Your task to perform on an android device: Go to internet settings Image 0: 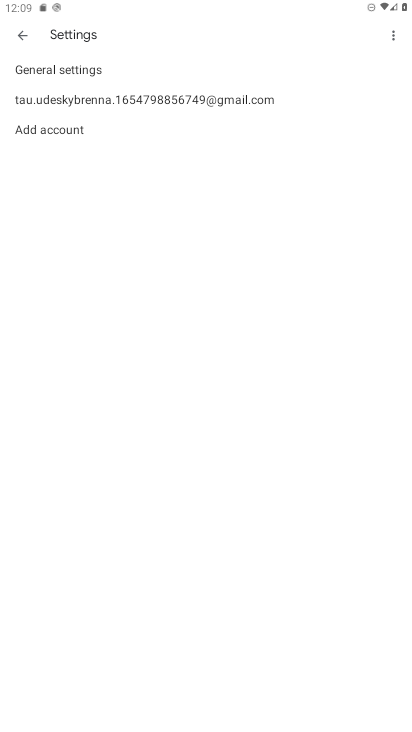
Step 0: press home button
Your task to perform on an android device: Go to internet settings Image 1: 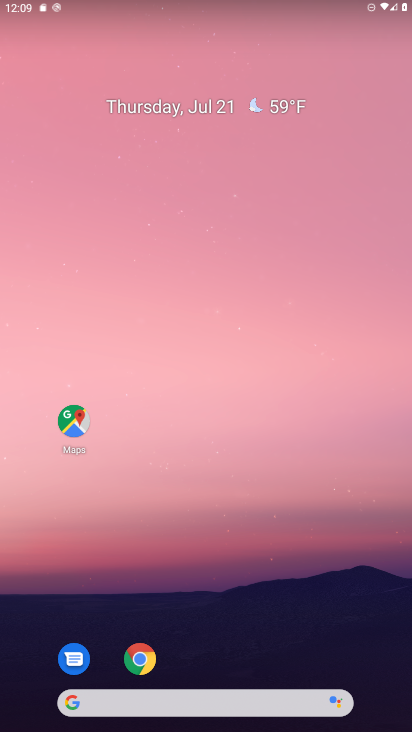
Step 1: drag from (65, 439) to (295, 56)
Your task to perform on an android device: Go to internet settings Image 2: 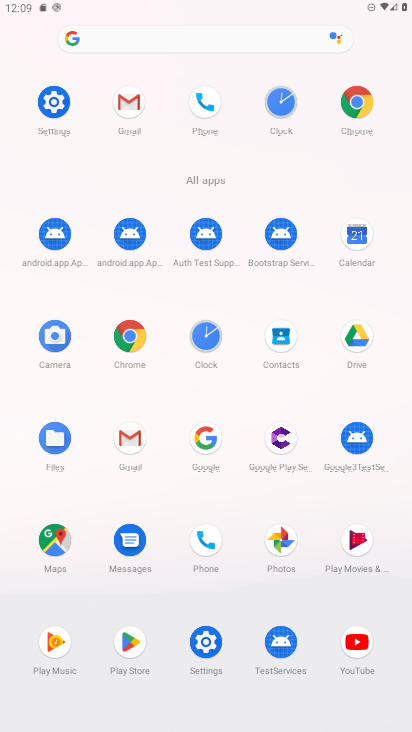
Step 2: click (66, 93)
Your task to perform on an android device: Go to internet settings Image 3: 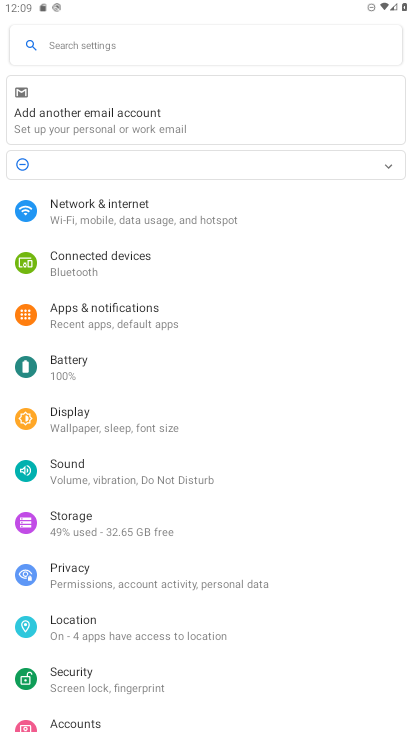
Step 3: click (127, 221)
Your task to perform on an android device: Go to internet settings Image 4: 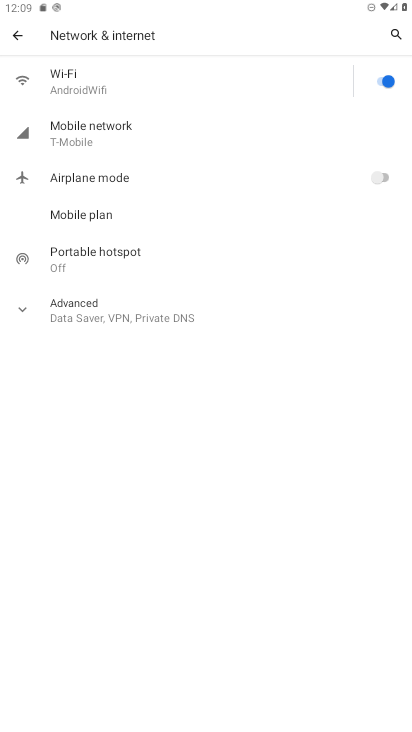
Step 4: click (150, 137)
Your task to perform on an android device: Go to internet settings Image 5: 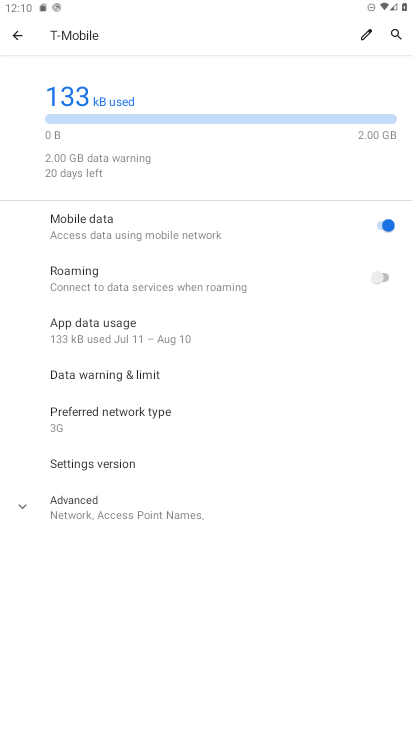
Step 5: task complete